Your task to perform on an android device: turn on sleep mode Image 0: 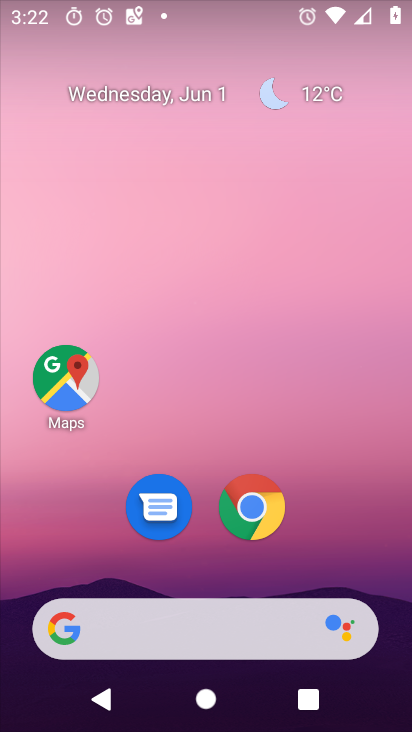
Step 0: drag from (312, 543) to (295, 25)
Your task to perform on an android device: turn on sleep mode Image 1: 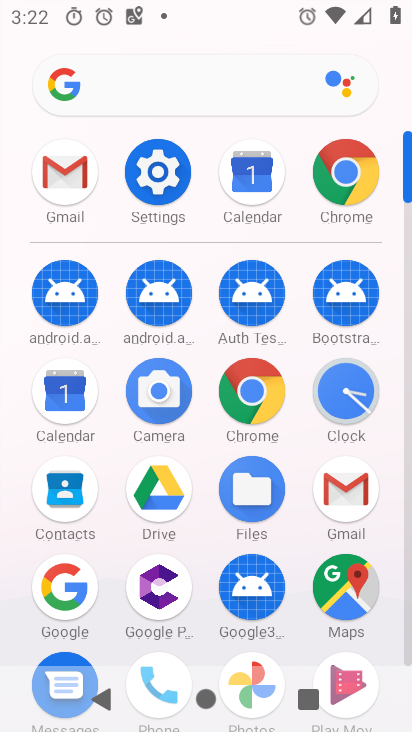
Step 1: click (151, 191)
Your task to perform on an android device: turn on sleep mode Image 2: 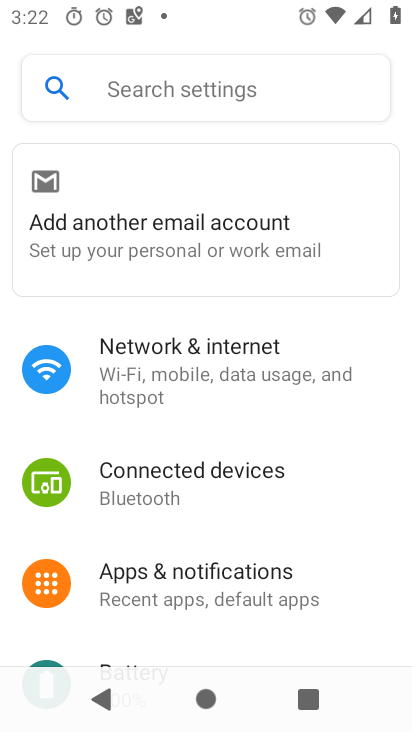
Step 2: drag from (296, 595) to (311, 108)
Your task to perform on an android device: turn on sleep mode Image 3: 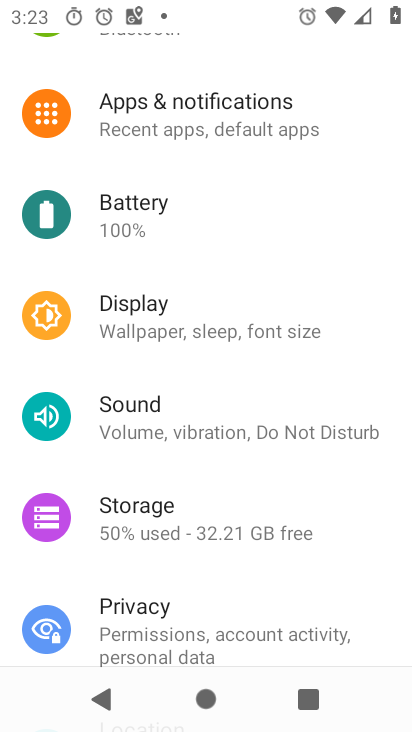
Step 3: click (96, 318)
Your task to perform on an android device: turn on sleep mode Image 4: 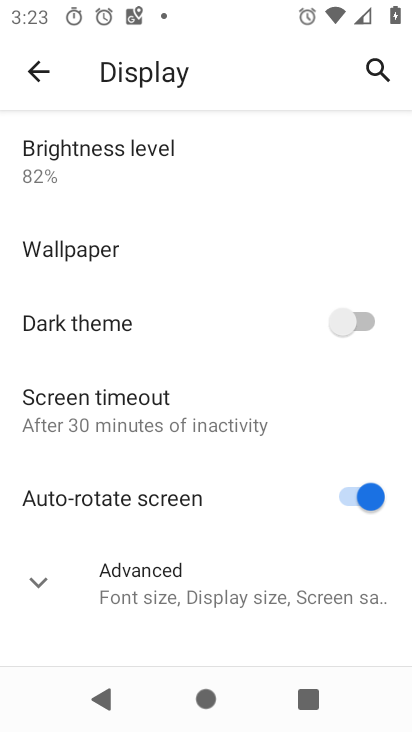
Step 4: click (30, 597)
Your task to perform on an android device: turn on sleep mode Image 5: 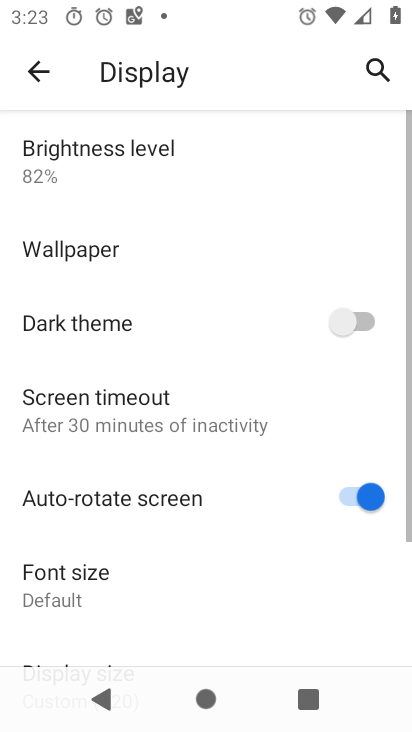
Step 5: task complete